Your task to perform on an android device: Check the news Image 0: 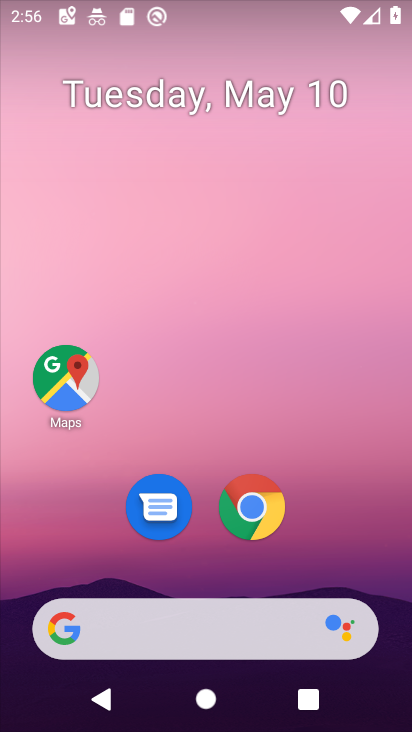
Step 0: click (259, 513)
Your task to perform on an android device: Check the news Image 1: 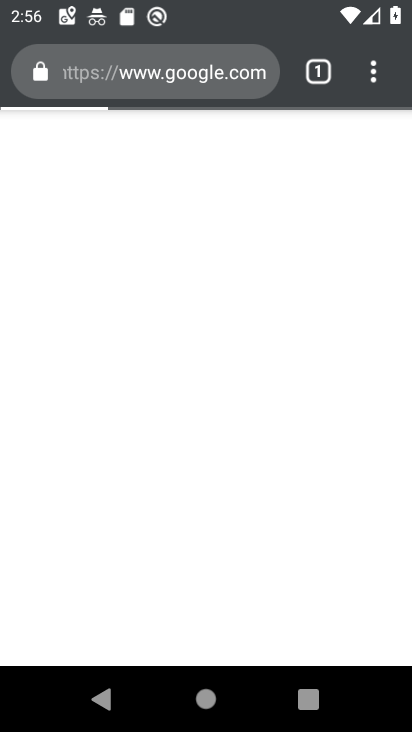
Step 1: click (161, 85)
Your task to perform on an android device: Check the news Image 2: 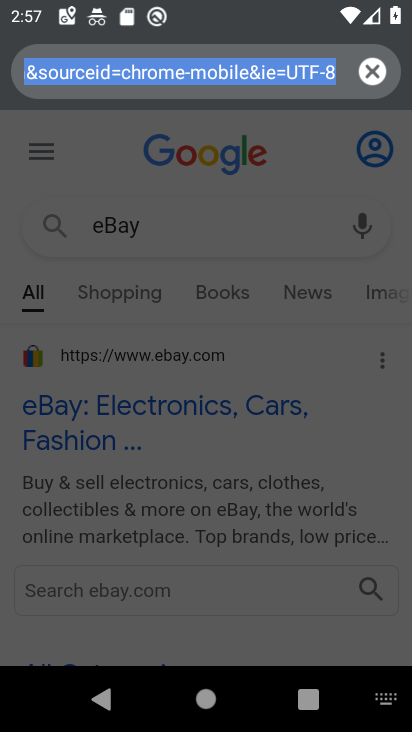
Step 2: type "news"
Your task to perform on an android device: Check the news Image 3: 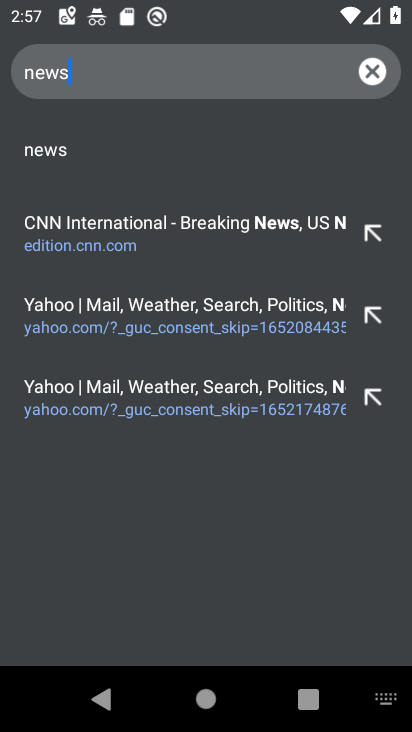
Step 3: click (78, 155)
Your task to perform on an android device: Check the news Image 4: 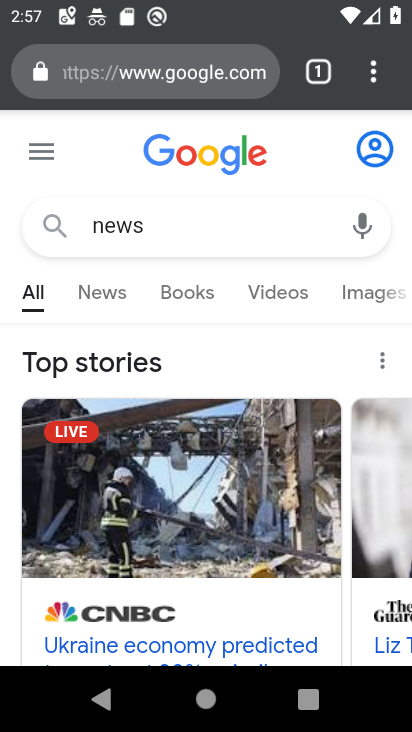
Step 4: task complete